Your task to perform on an android device: see sites visited before in the chrome app Image 0: 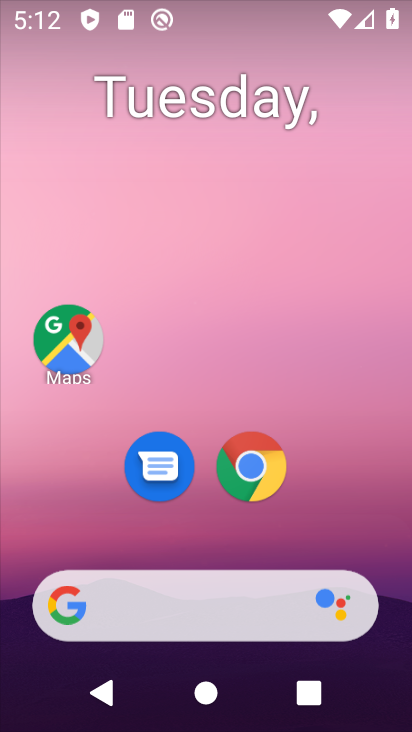
Step 0: drag from (307, 527) to (299, 56)
Your task to perform on an android device: see sites visited before in the chrome app Image 1: 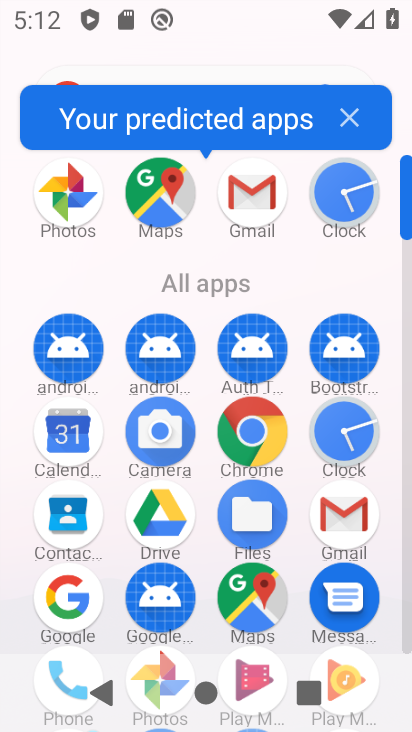
Step 1: click (251, 417)
Your task to perform on an android device: see sites visited before in the chrome app Image 2: 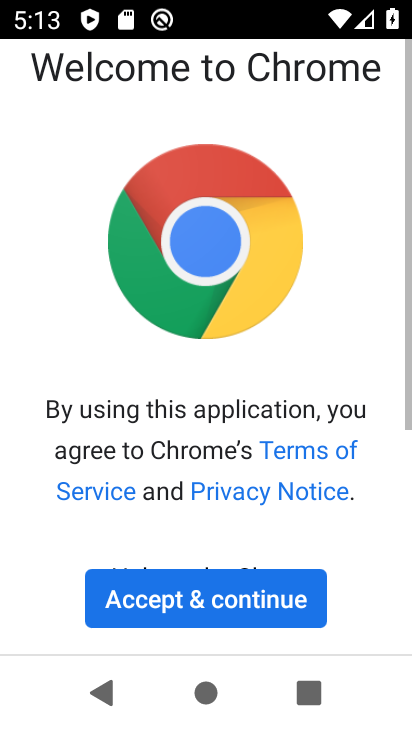
Step 2: click (265, 588)
Your task to perform on an android device: see sites visited before in the chrome app Image 3: 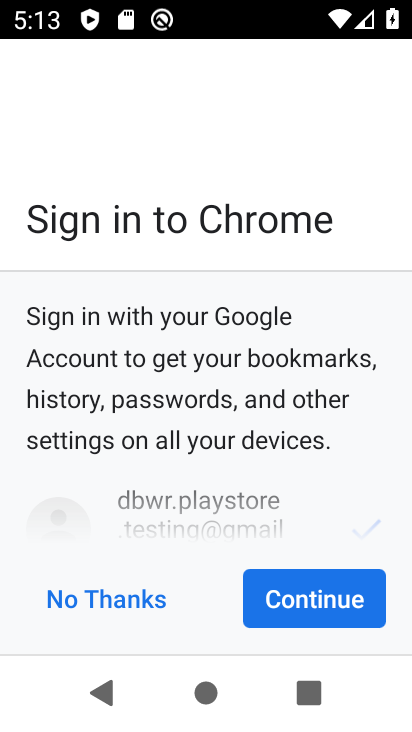
Step 3: click (265, 588)
Your task to perform on an android device: see sites visited before in the chrome app Image 4: 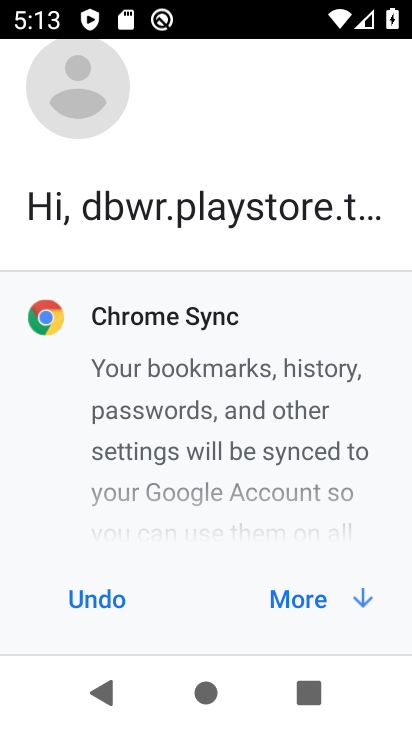
Step 4: click (265, 588)
Your task to perform on an android device: see sites visited before in the chrome app Image 5: 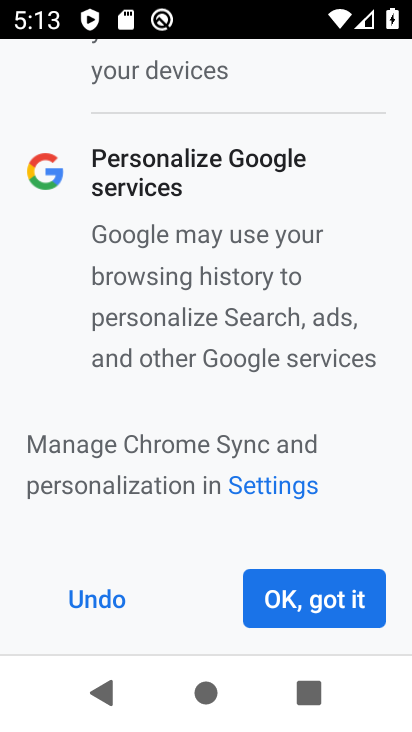
Step 5: click (265, 588)
Your task to perform on an android device: see sites visited before in the chrome app Image 6: 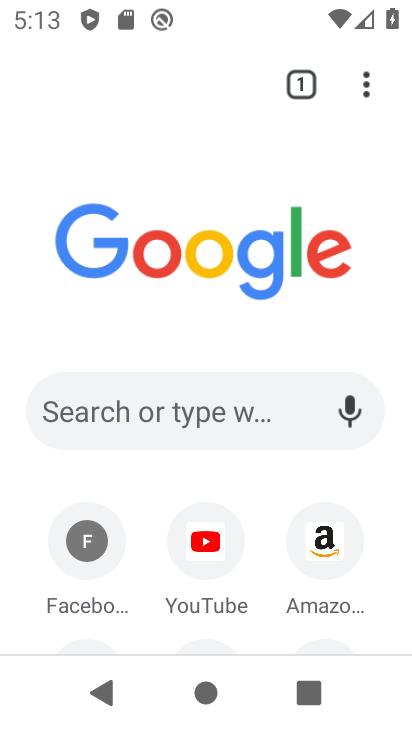
Step 6: task complete